Your task to perform on an android device: toggle improve location accuracy Image 0: 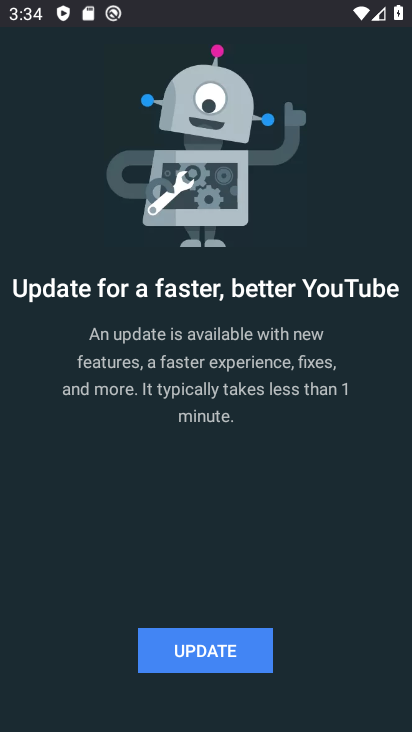
Step 0: drag from (285, 14) to (223, 716)
Your task to perform on an android device: toggle improve location accuracy Image 1: 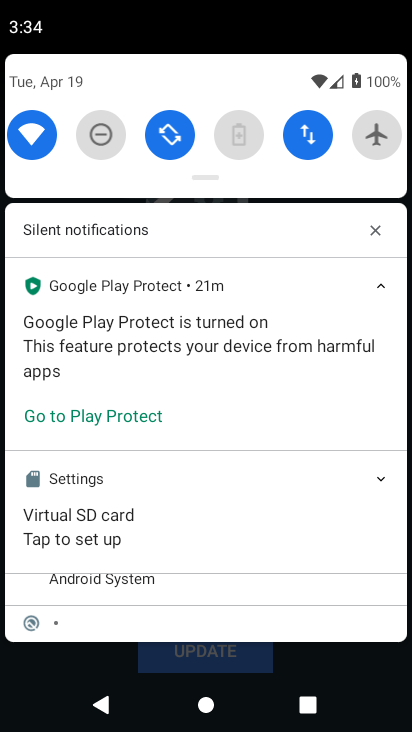
Step 1: drag from (227, 74) to (236, 478)
Your task to perform on an android device: toggle improve location accuracy Image 2: 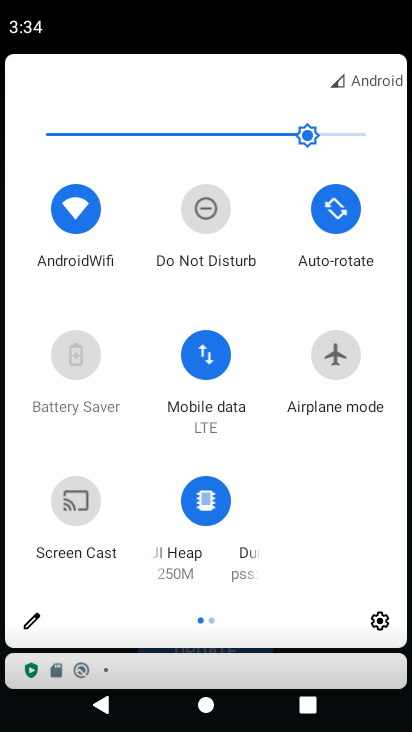
Step 2: click (375, 618)
Your task to perform on an android device: toggle improve location accuracy Image 3: 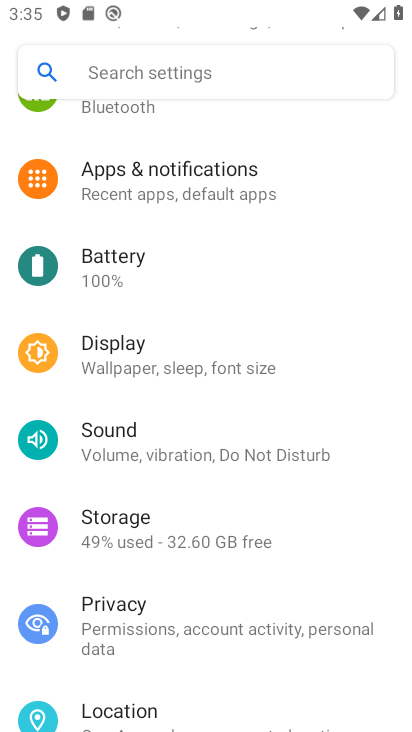
Step 3: click (113, 707)
Your task to perform on an android device: toggle improve location accuracy Image 4: 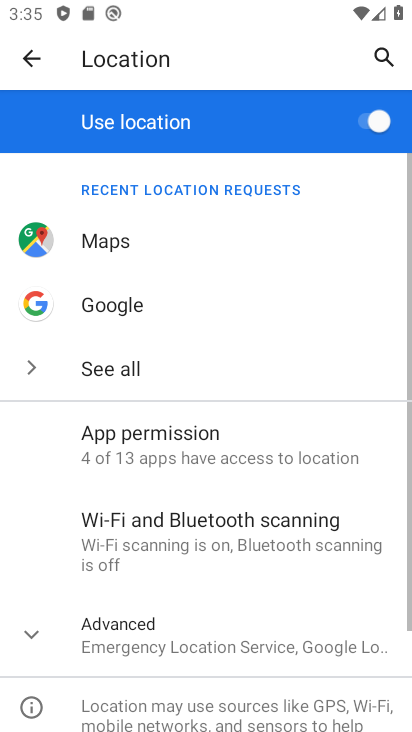
Step 4: click (141, 652)
Your task to perform on an android device: toggle improve location accuracy Image 5: 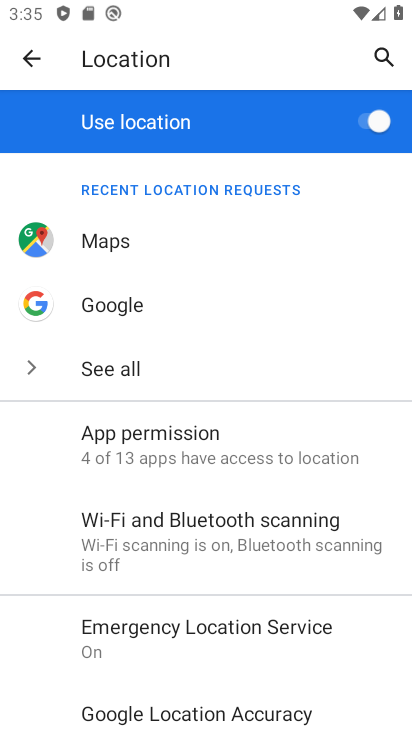
Step 5: drag from (172, 667) to (319, 188)
Your task to perform on an android device: toggle improve location accuracy Image 6: 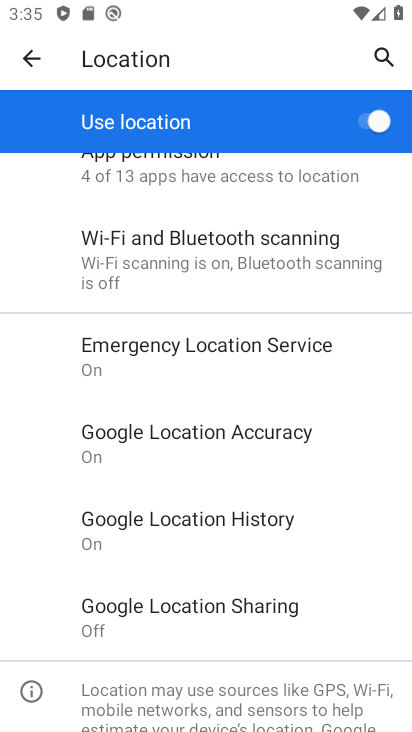
Step 6: click (203, 448)
Your task to perform on an android device: toggle improve location accuracy Image 7: 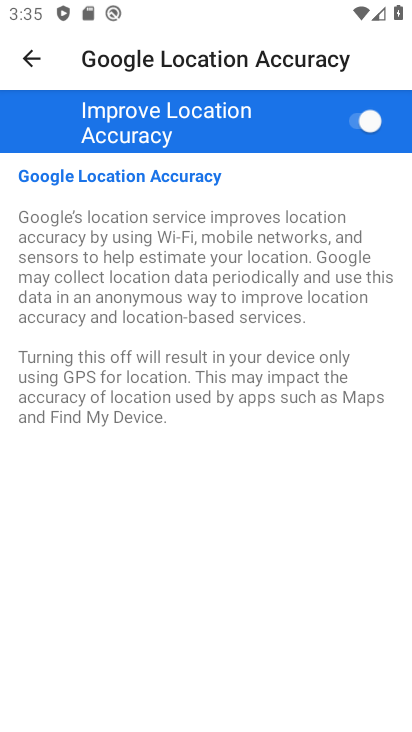
Step 7: click (362, 123)
Your task to perform on an android device: toggle improve location accuracy Image 8: 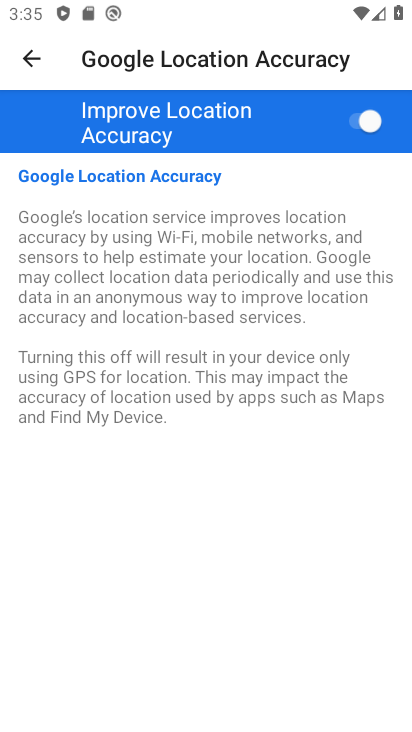
Step 8: click (362, 123)
Your task to perform on an android device: toggle improve location accuracy Image 9: 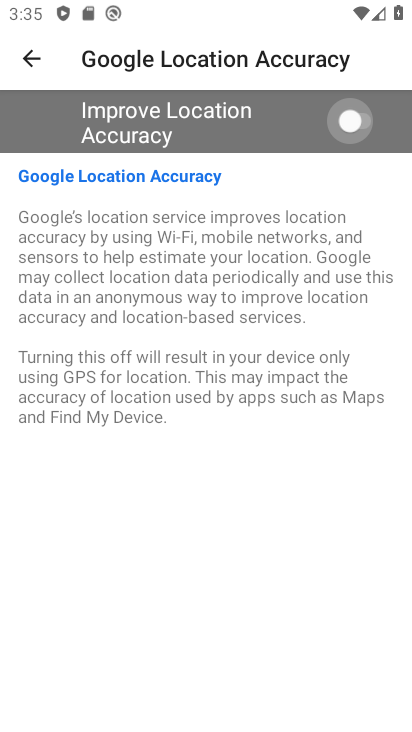
Step 9: click (362, 123)
Your task to perform on an android device: toggle improve location accuracy Image 10: 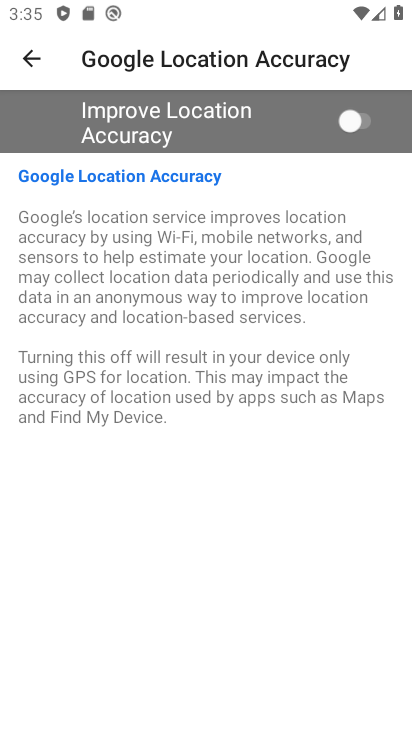
Step 10: click (362, 123)
Your task to perform on an android device: toggle improve location accuracy Image 11: 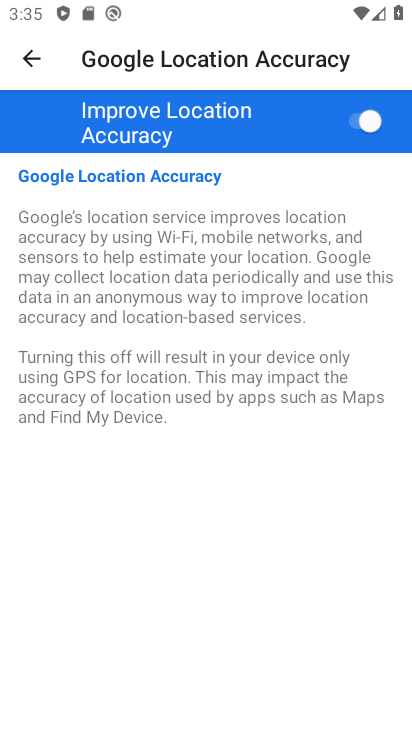
Step 11: task complete